Your task to perform on an android device: Open privacy settings Image 0: 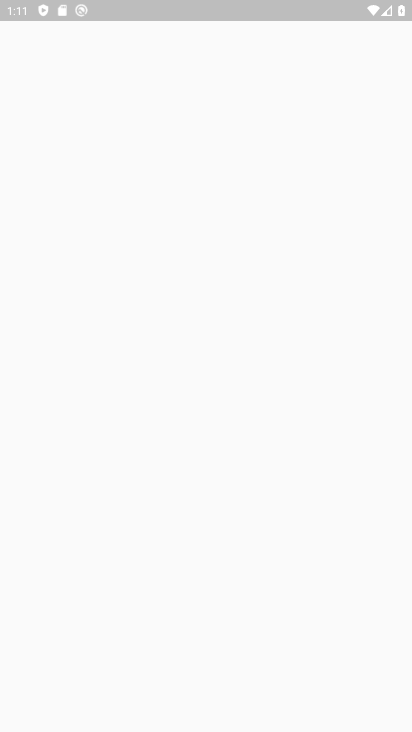
Step 0: press home button
Your task to perform on an android device: Open privacy settings Image 1: 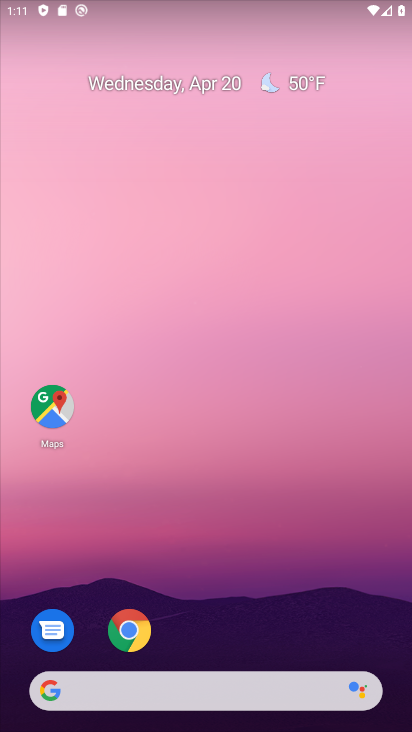
Step 1: click (131, 627)
Your task to perform on an android device: Open privacy settings Image 2: 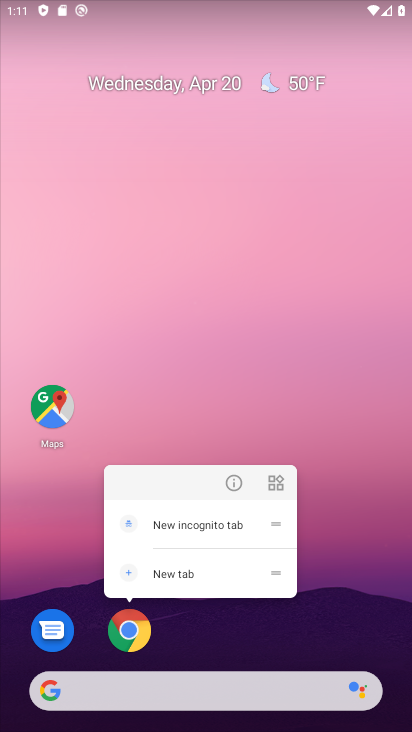
Step 2: click (131, 627)
Your task to perform on an android device: Open privacy settings Image 3: 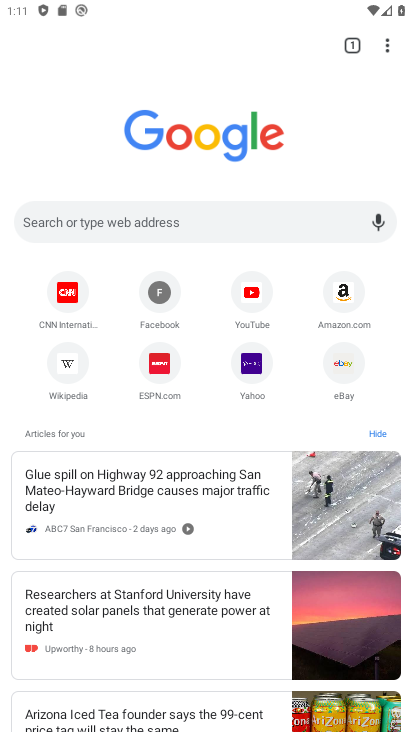
Step 3: click (384, 45)
Your task to perform on an android device: Open privacy settings Image 4: 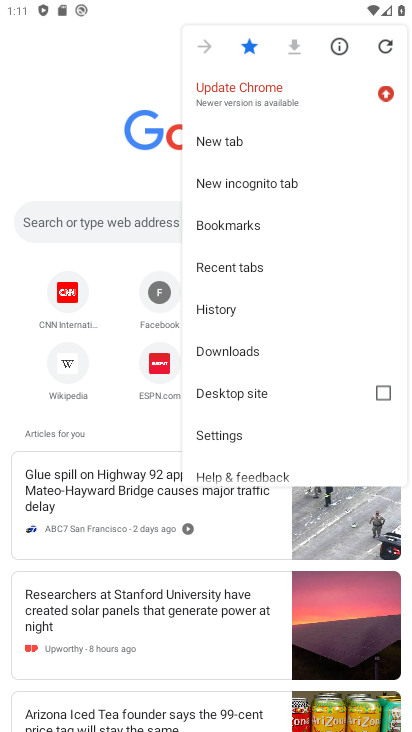
Step 4: click (277, 447)
Your task to perform on an android device: Open privacy settings Image 5: 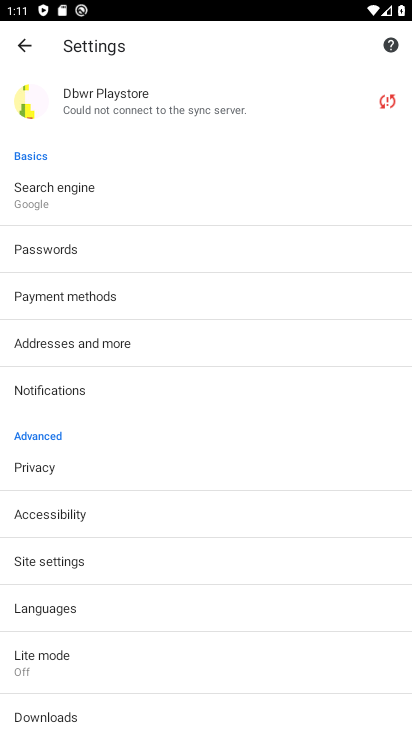
Step 5: click (102, 467)
Your task to perform on an android device: Open privacy settings Image 6: 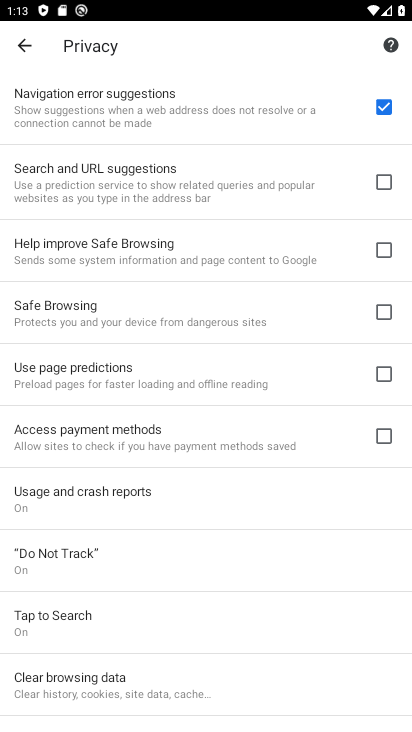
Step 6: task complete